Your task to perform on an android device: Search for "logitech g pro" on newegg, select the first entry, and add it to the cart. Image 0: 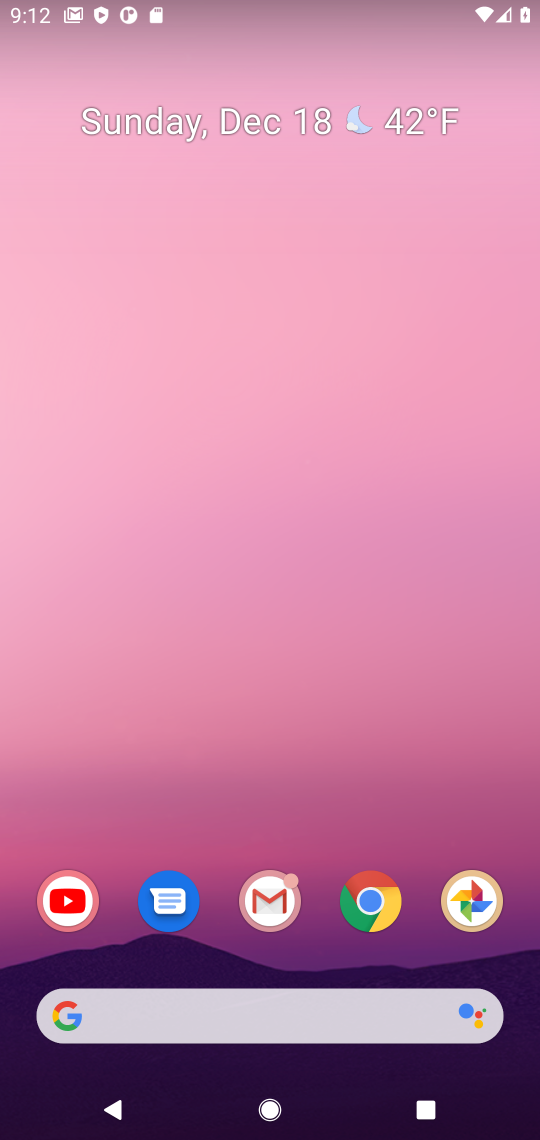
Step 0: click (378, 921)
Your task to perform on an android device: Search for "logitech g pro" on newegg, select the first entry, and add it to the cart. Image 1: 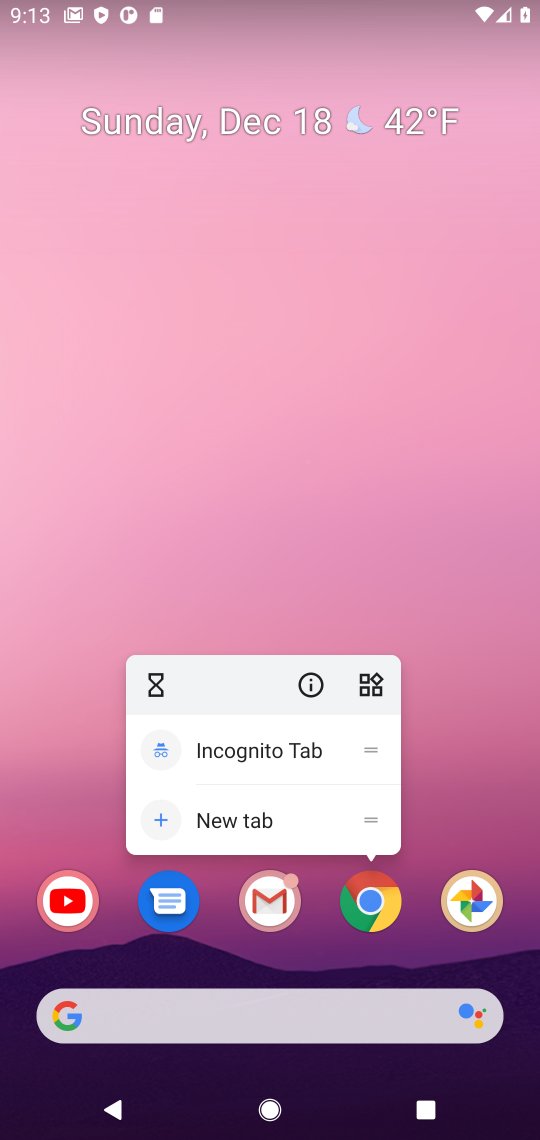
Step 1: click (348, 907)
Your task to perform on an android device: Search for "logitech g pro" on newegg, select the first entry, and add it to the cart. Image 2: 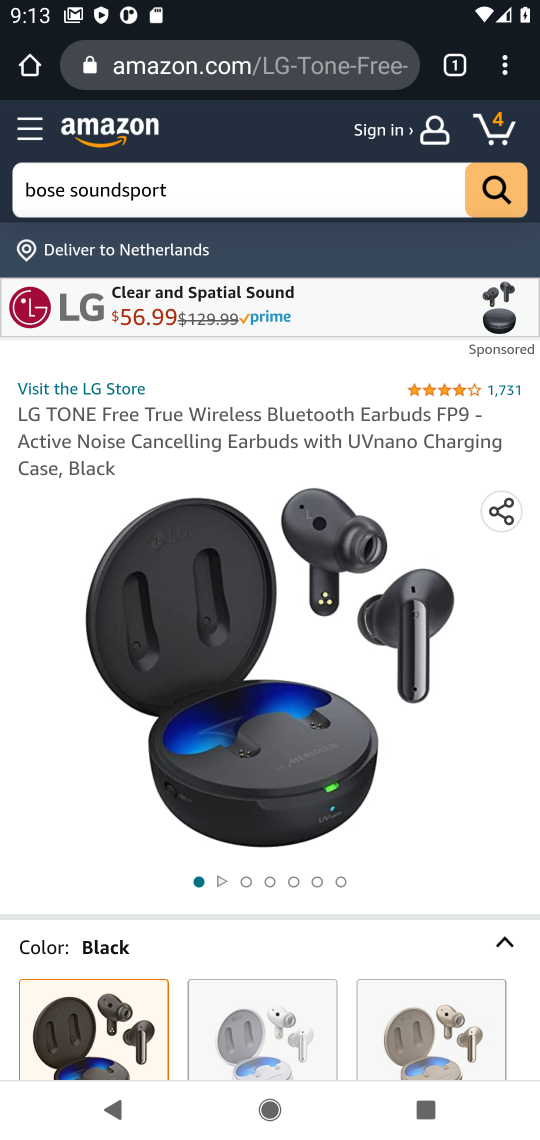
Step 2: click (94, 184)
Your task to perform on an android device: Search for "logitech g pro" on newegg, select the first entry, and add it to the cart. Image 3: 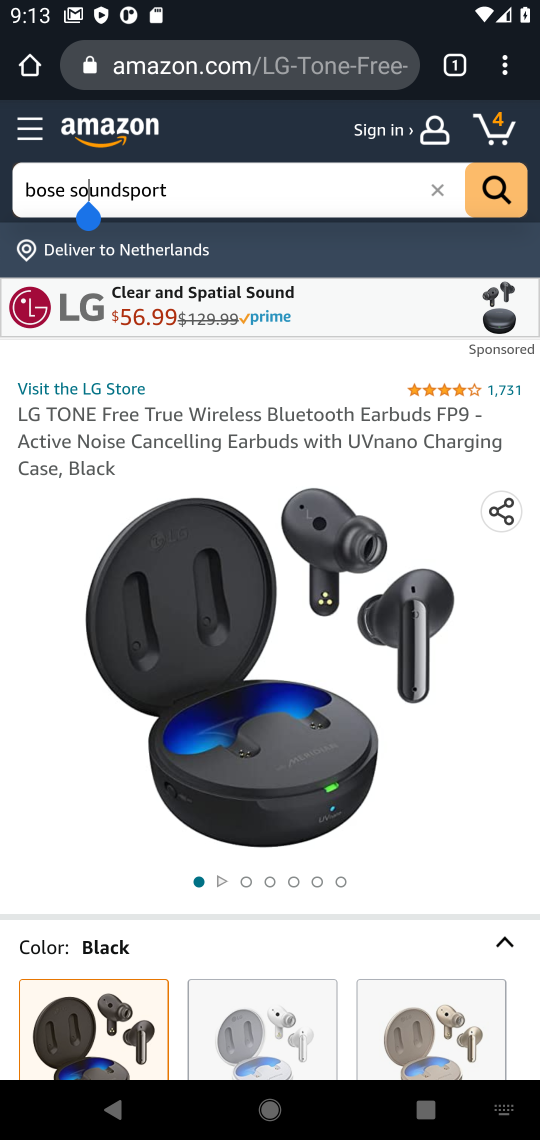
Step 3: click (240, 57)
Your task to perform on an android device: Search for "logitech g pro" on newegg, select the first entry, and add it to the cart. Image 4: 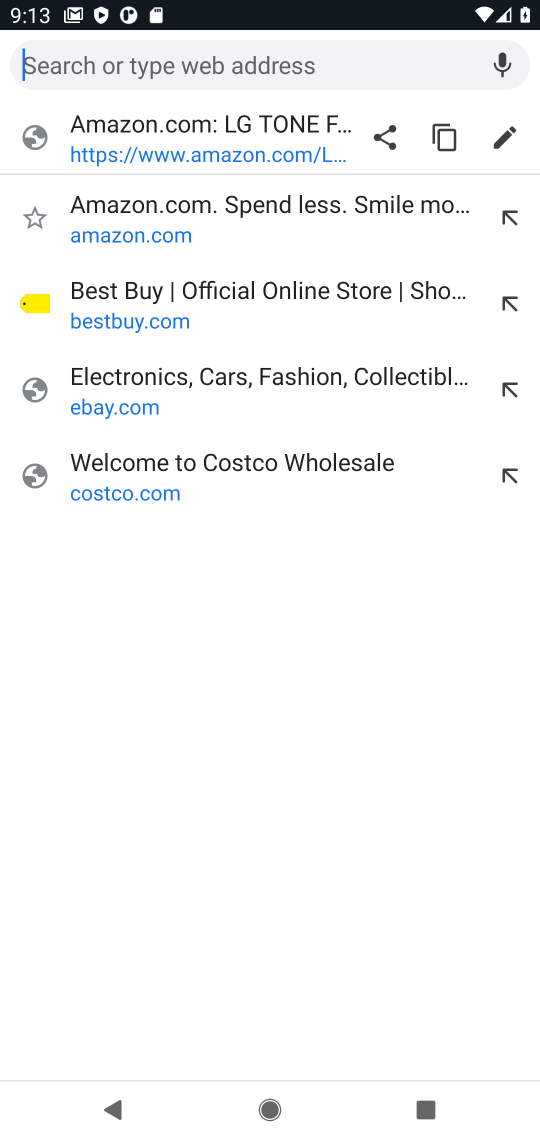
Step 4: type "newegg]"
Your task to perform on an android device: Search for "logitech g pro" on newegg, select the first entry, and add it to the cart. Image 5: 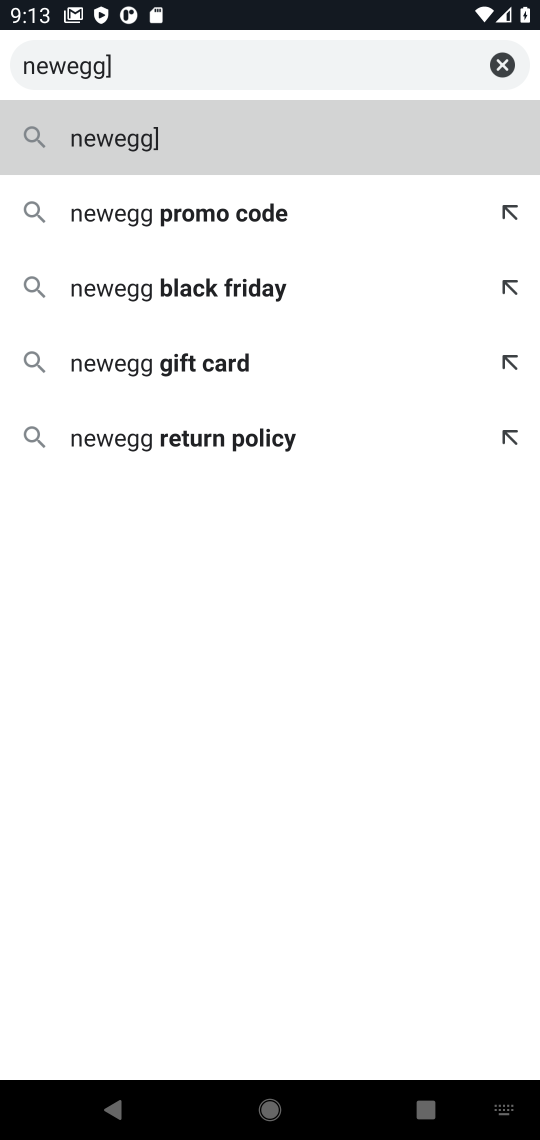
Step 5: click (189, 429)
Your task to perform on an android device: Search for "logitech g pro" on newegg, select the first entry, and add it to the cart. Image 6: 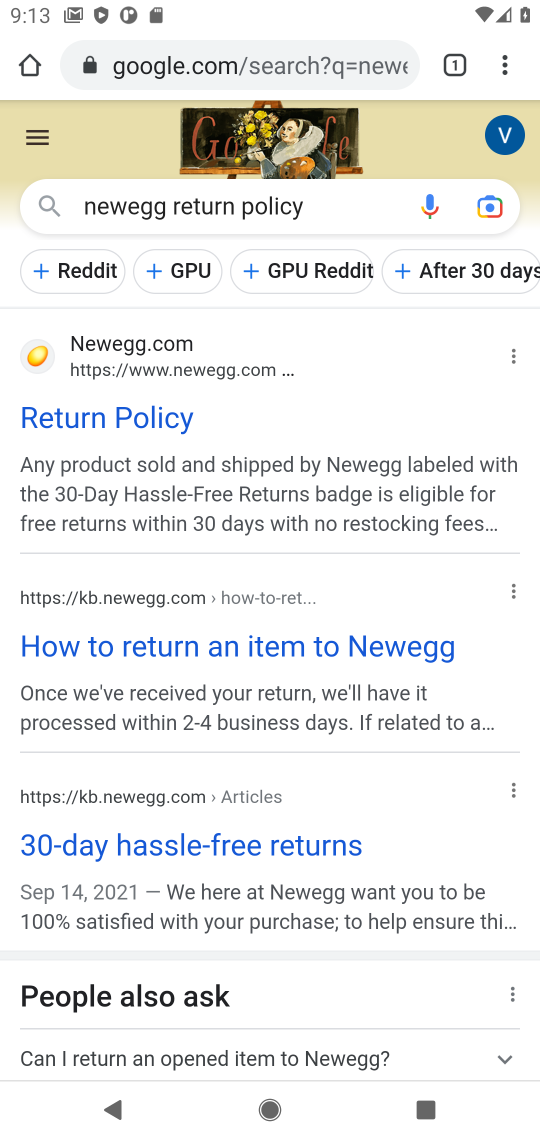
Step 6: click (87, 343)
Your task to perform on an android device: Search for "logitech g pro" on newegg, select the first entry, and add it to the cart. Image 7: 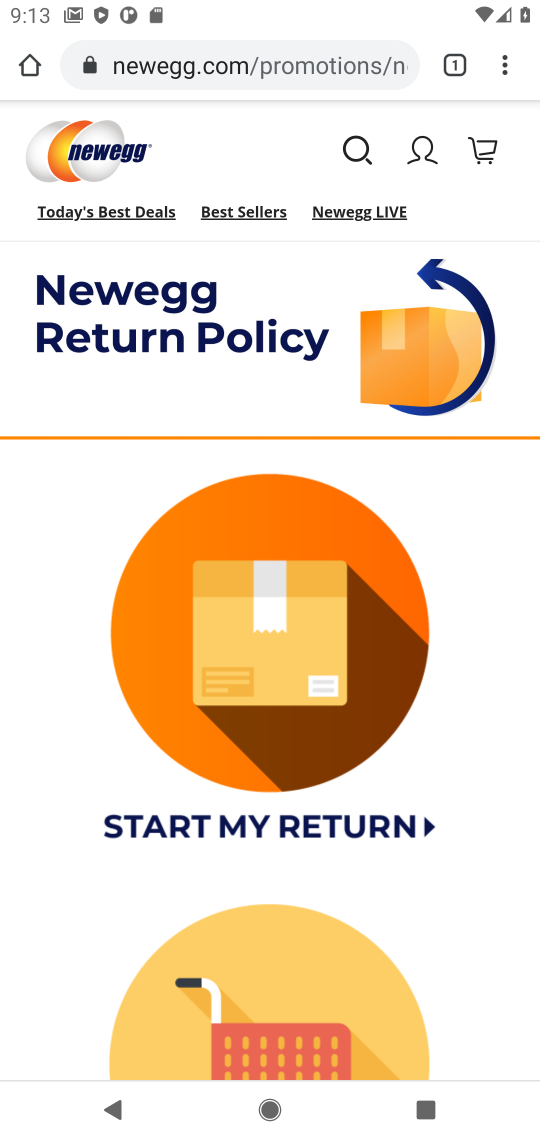
Step 7: click (87, 130)
Your task to perform on an android device: Search for "logitech g pro" on newegg, select the first entry, and add it to the cart. Image 8: 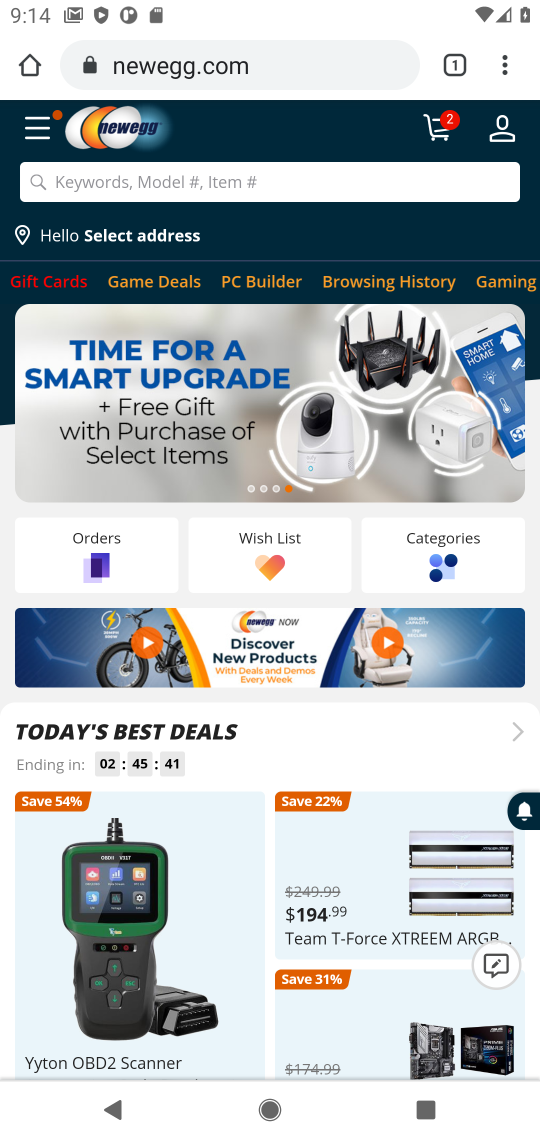
Step 8: click (129, 197)
Your task to perform on an android device: Search for "logitech g pro" on newegg, select the first entry, and add it to the cart. Image 9: 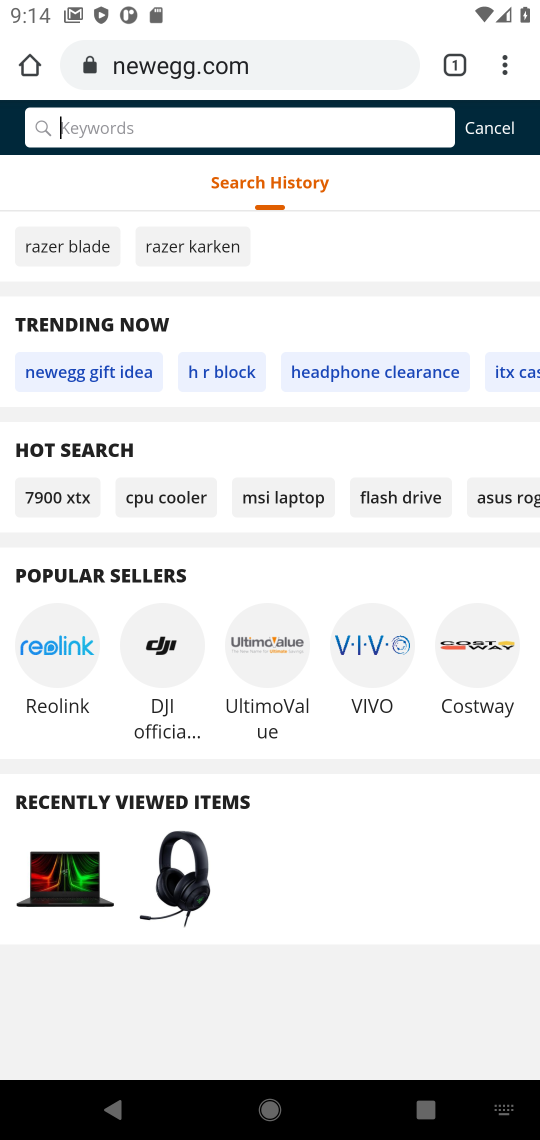
Step 9: type "logitech g pro"
Your task to perform on an android device: Search for "logitech g pro" on newegg, select the first entry, and add it to the cart. Image 10: 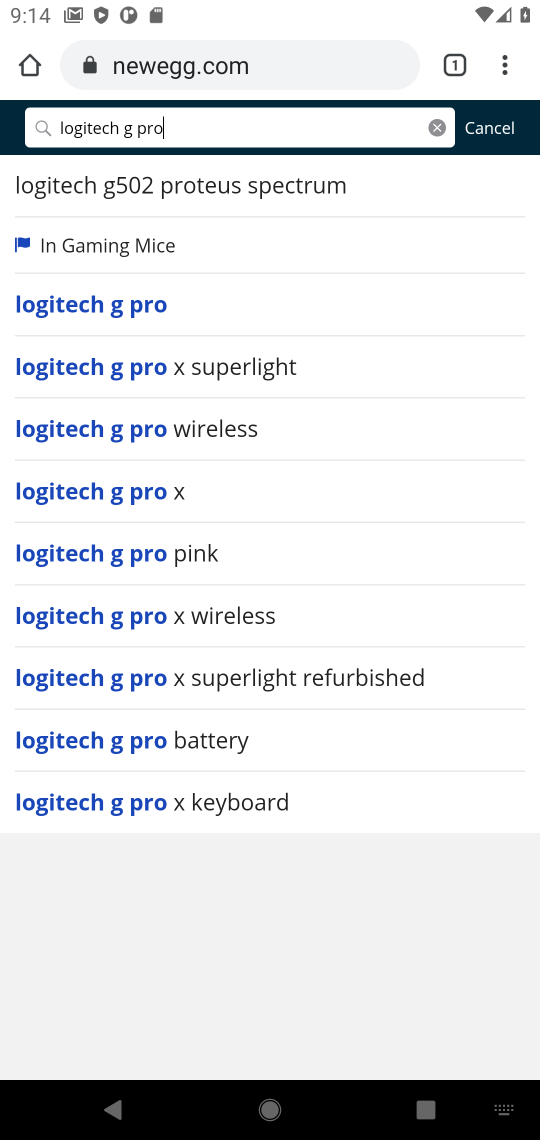
Step 10: click (95, 289)
Your task to perform on an android device: Search for "logitech g pro" on newegg, select the first entry, and add it to the cart. Image 11: 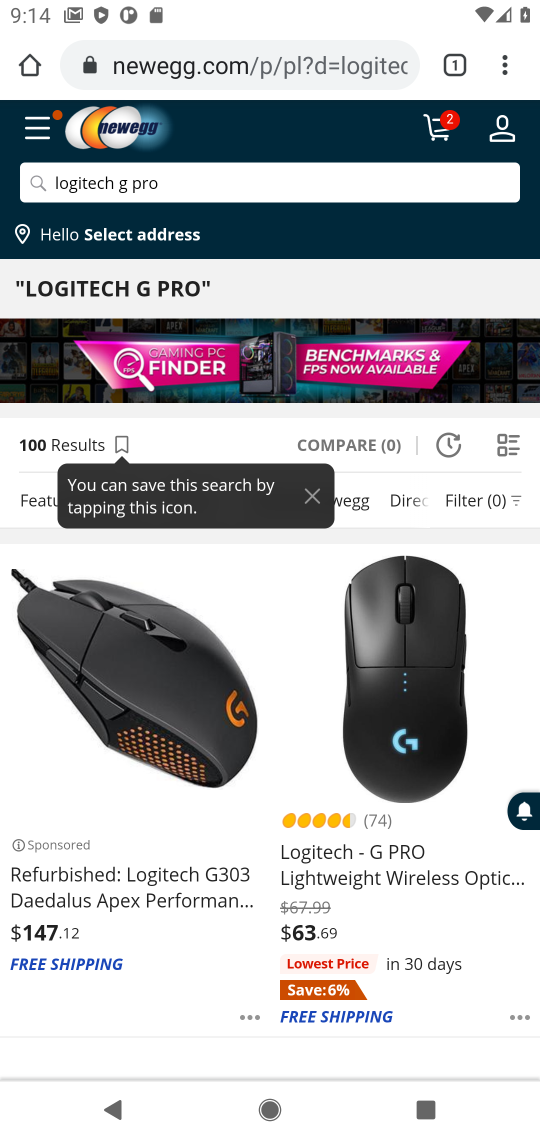
Step 11: click (126, 877)
Your task to perform on an android device: Search for "logitech g pro" on newegg, select the first entry, and add it to the cart. Image 12: 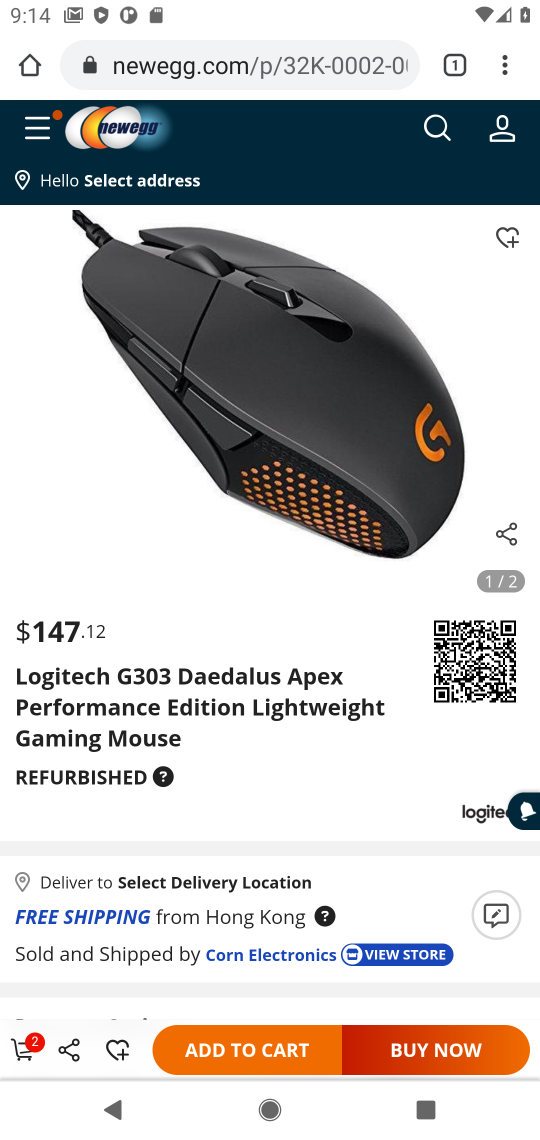
Step 12: click (223, 1058)
Your task to perform on an android device: Search for "logitech g pro" on newegg, select the first entry, and add it to the cart. Image 13: 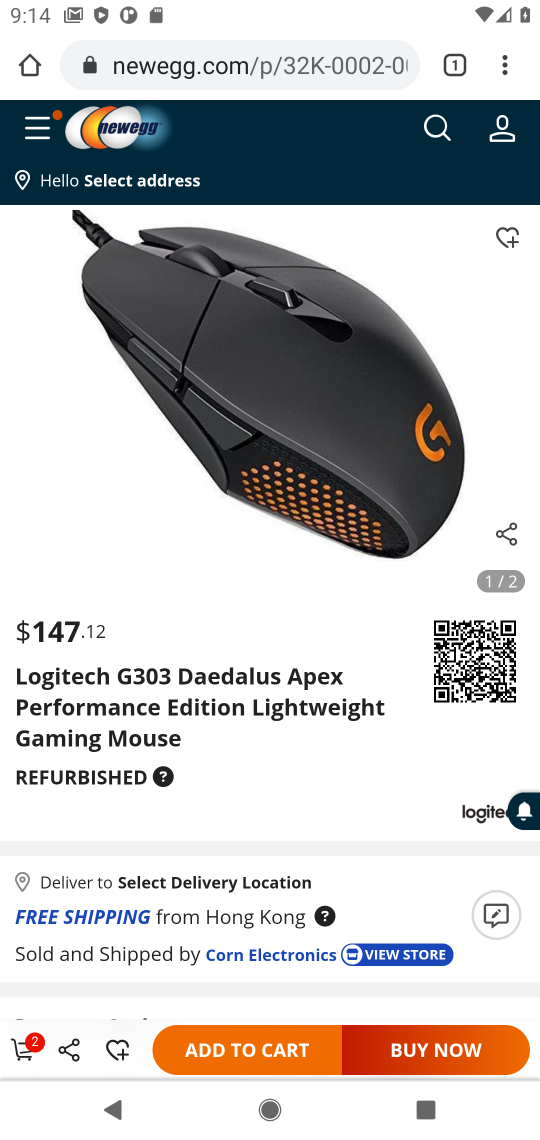
Step 13: task complete